Your task to perform on an android device: change the clock display to digital Image 0: 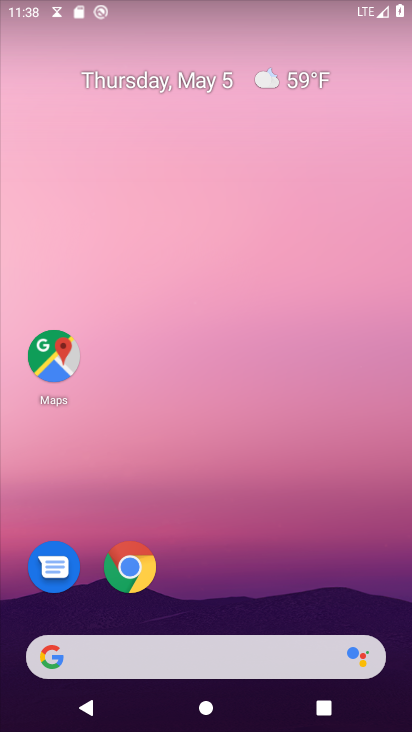
Step 0: drag from (355, 603) to (371, 36)
Your task to perform on an android device: change the clock display to digital Image 1: 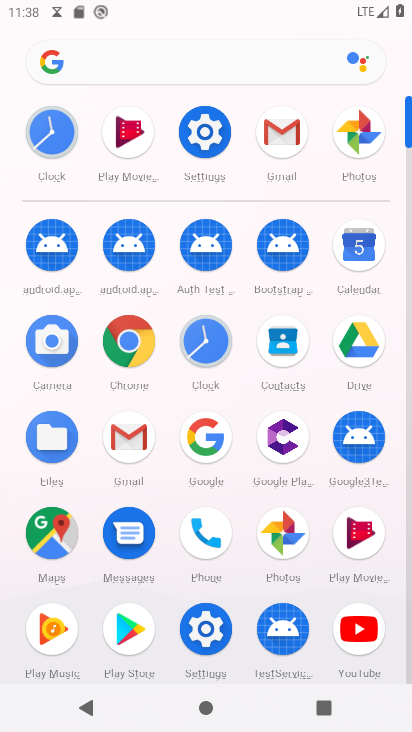
Step 1: click (204, 342)
Your task to perform on an android device: change the clock display to digital Image 2: 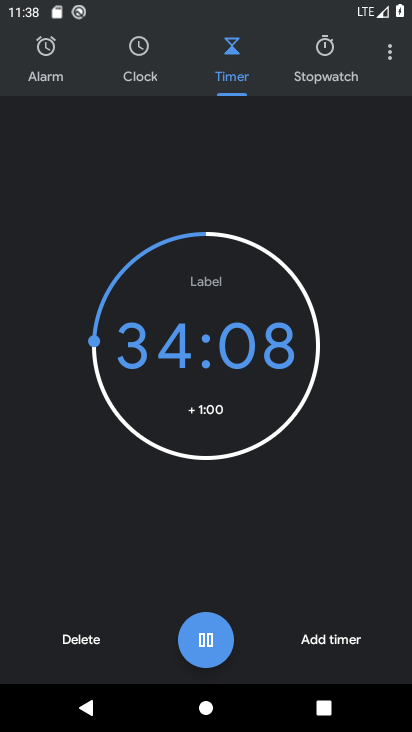
Step 2: click (389, 59)
Your task to perform on an android device: change the clock display to digital Image 3: 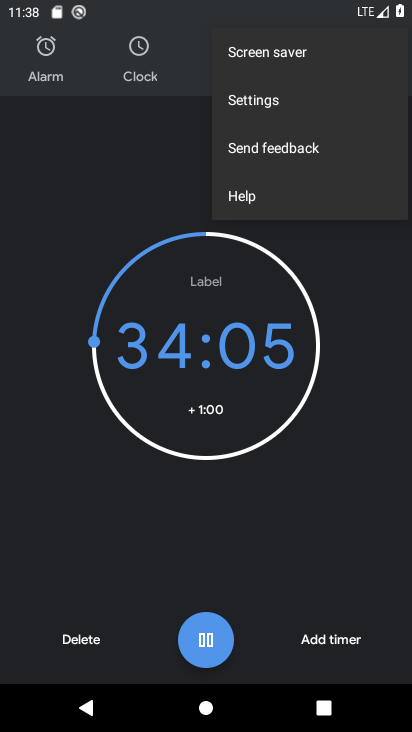
Step 3: click (277, 109)
Your task to perform on an android device: change the clock display to digital Image 4: 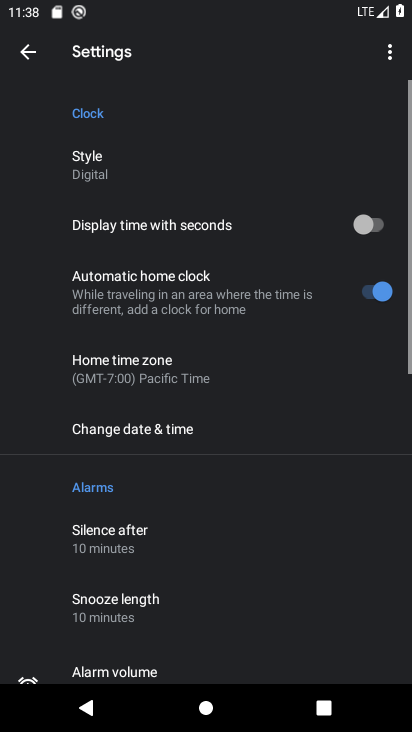
Step 4: click (82, 166)
Your task to perform on an android device: change the clock display to digital Image 5: 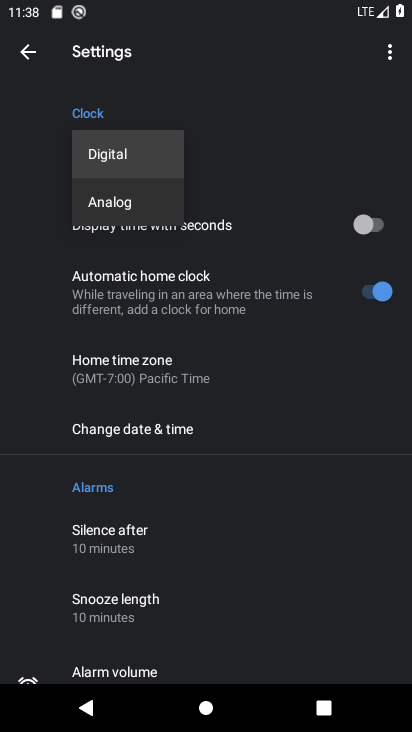
Step 5: task complete